Your task to perform on an android device: toggle airplane mode Image 0: 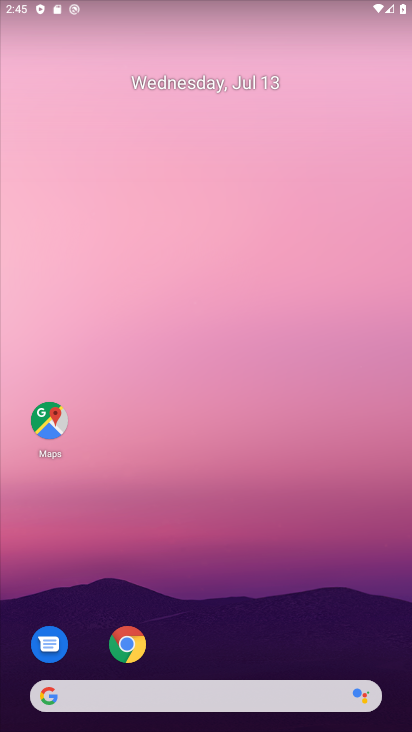
Step 0: drag from (201, 693) to (174, 77)
Your task to perform on an android device: toggle airplane mode Image 1: 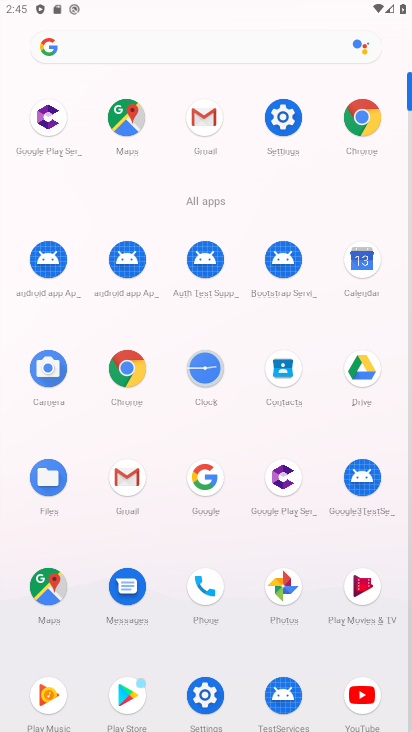
Step 1: click (282, 115)
Your task to perform on an android device: toggle airplane mode Image 2: 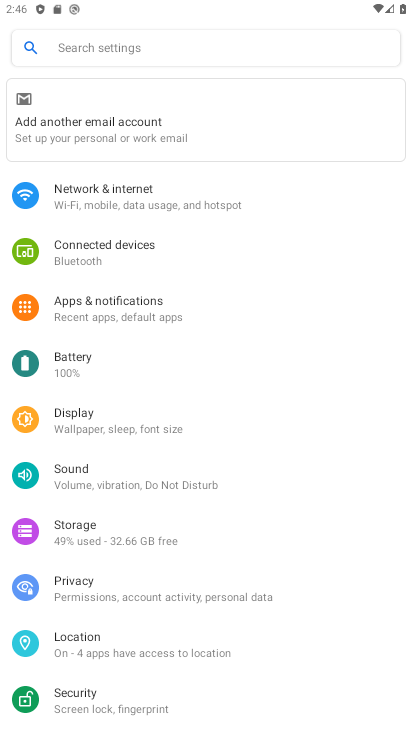
Step 2: click (141, 201)
Your task to perform on an android device: toggle airplane mode Image 3: 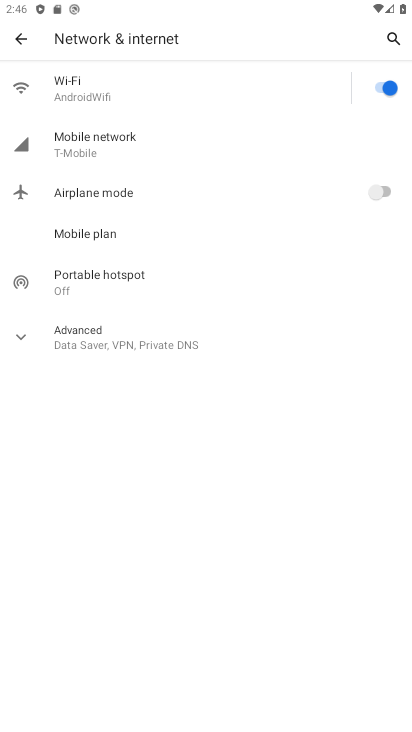
Step 3: click (383, 187)
Your task to perform on an android device: toggle airplane mode Image 4: 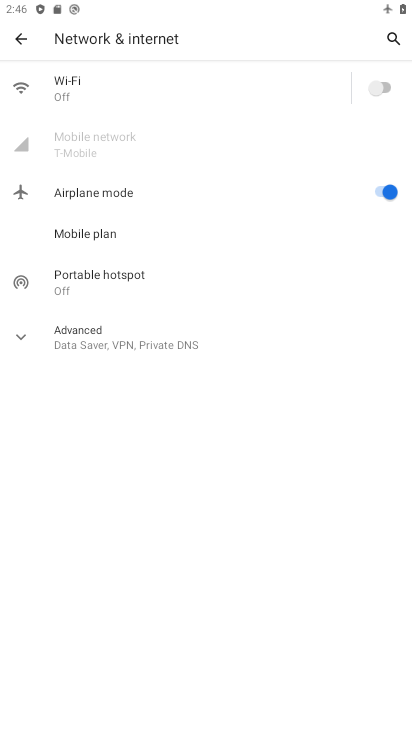
Step 4: task complete